Your task to perform on an android device: turn smart compose on in the gmail app Image 0: 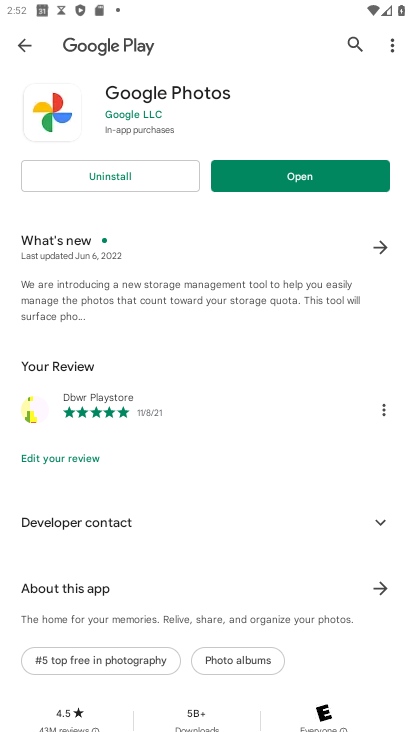
Step 0: press home button
Your task to perform on an android device: turn smart compose on in the gmail app Image 1: 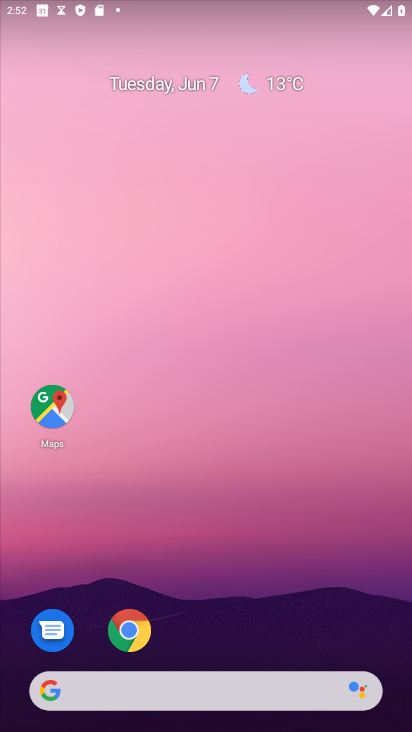
Step 1: drag from (208, 678) to (173, 118)
Your task to perform on an android device: turn smart compose on in the gmail app Image 2: 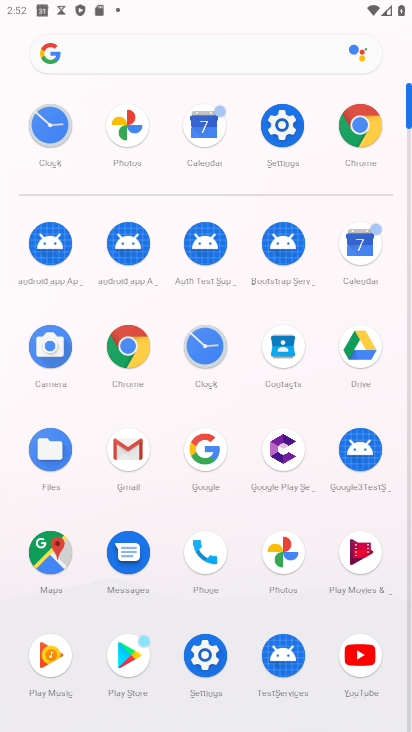
Step 2: click (134, 446)
Your task to perform on an android device: turn smart compose on in the gmail app Image 3: 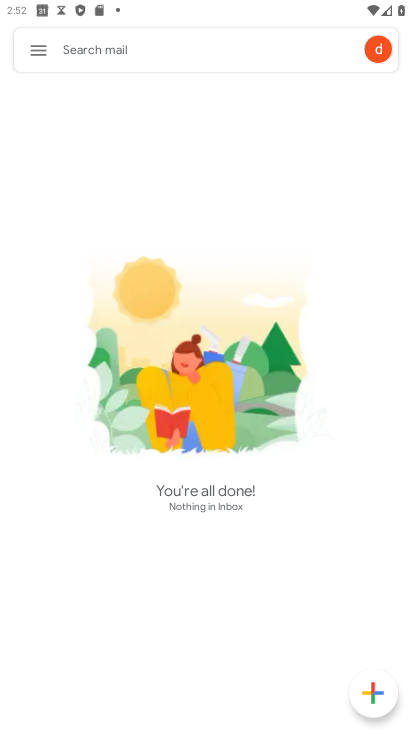
Step 3: click (34, 49)
Your task to perform on an android device: turn smart compose on in the gmail app Image 4: 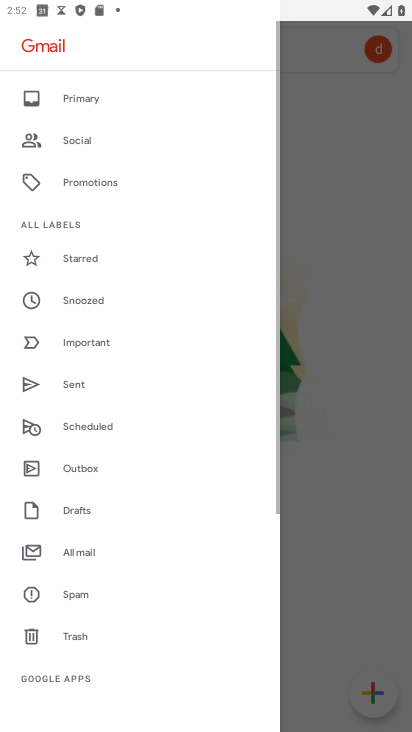
Step 4: drag from (84, 628) to (249, 48)
Your task to perform on an android device: turn smart compose on in the gmail app Image 5: 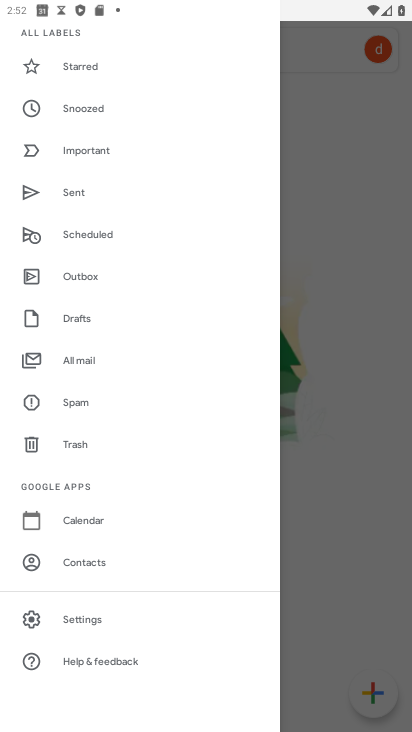
Step 5: click (97, 612)
Your task to perform on an android device: turn smart compose on in the gmail app Image 6: 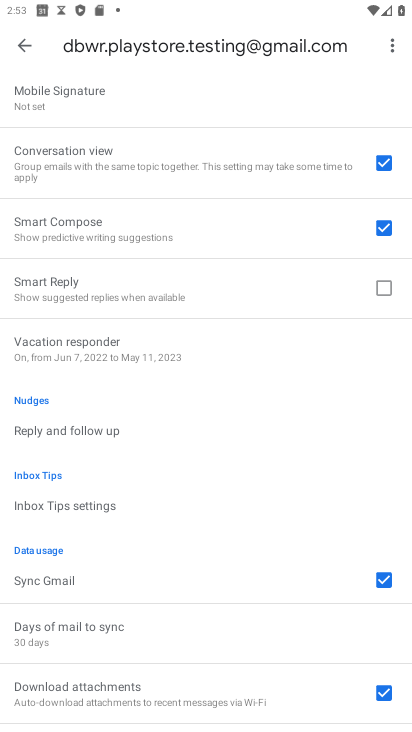
Step 6: task complete